Your task to perform on an android device: change notification settings in the gmail app Image 0: 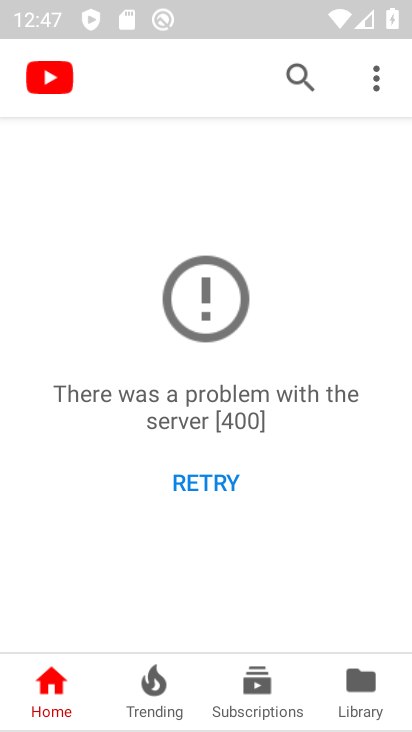
Step 0: press home button
Your task to perform on an android device: change notification settings in the gmail app Image 1: 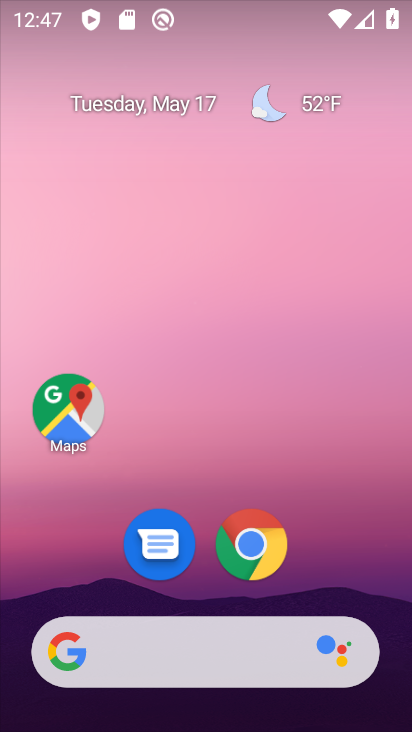
Step 1: drag from (339, 542) to (352, 55)
Your task to perform on an android device: change notification settings in the gmail app Image 2: 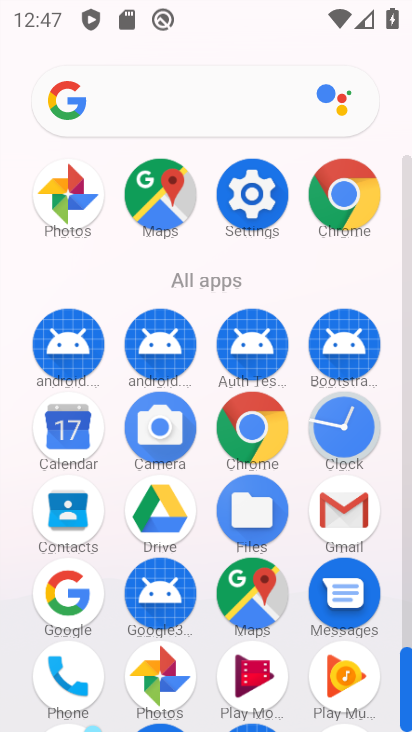
Step 2: click (361, 522)
Your task to perform on an android device: change notification settings in the gmail app Image 3: 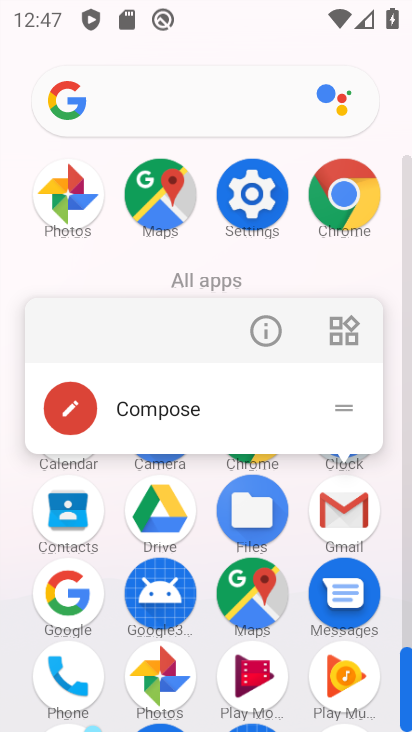
Step 3: click (353, 523)
Your task to perform on an android device: change notification settings in the gmail app Image 4: 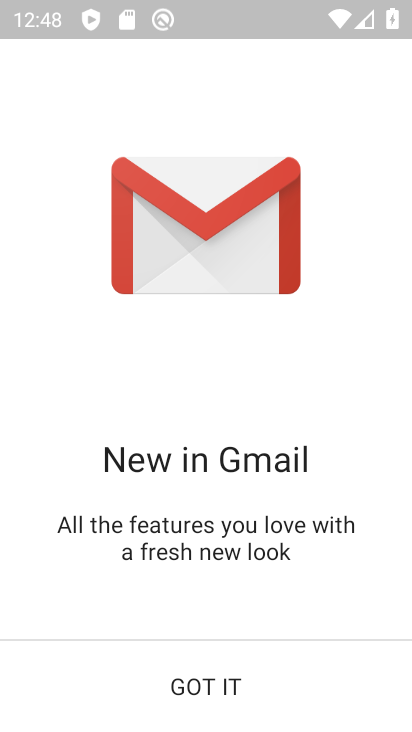
Step 4: click (226, 683)
Your task to perform on an android device: change notification settings in the gmail app Image 5: 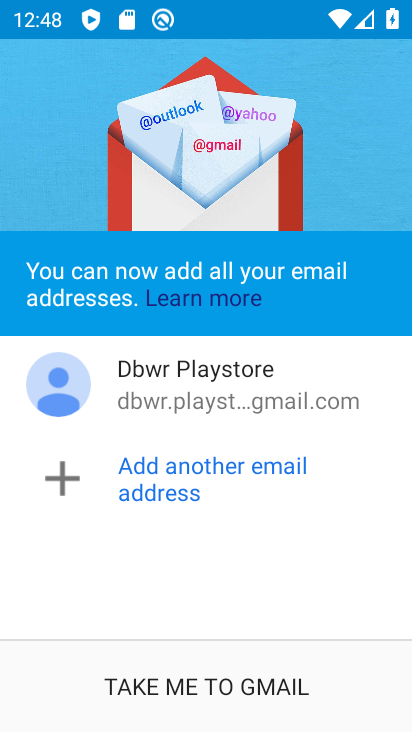
Step 5: click (225, 673)
Your task to perform on an android device: change notification settings in the gmail app Image 6: 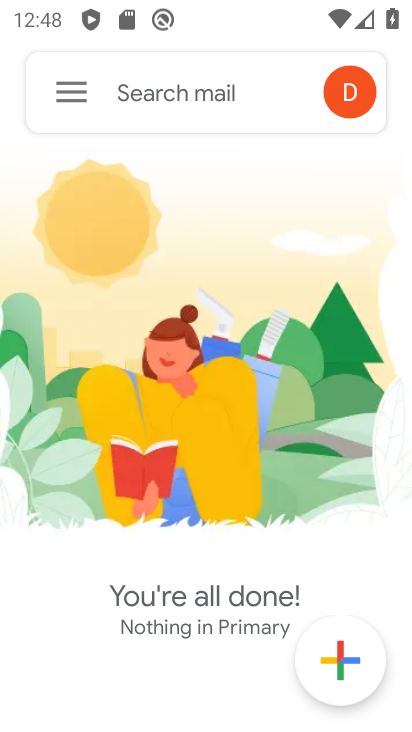
Step 6: click (82, 89)
Your task to perform on an android device: change notification settings in the gmail app Image 7: 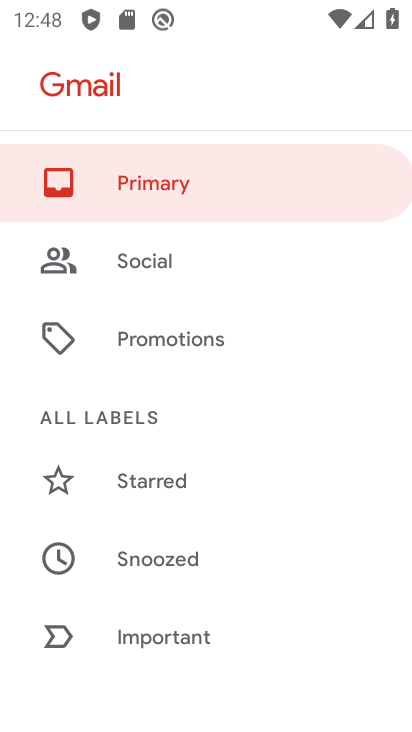
Step 7: drag from (250, 658) to (309, 232)
Your task to perform on an android device: change notification settings in the gmail app Image 8: 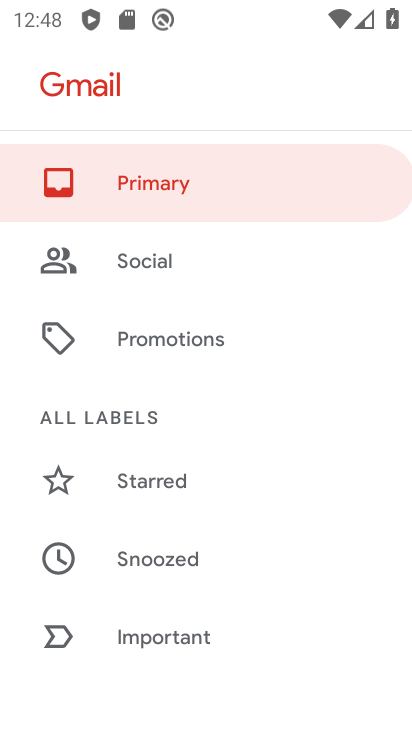
Step 8: drag from (231, 629) to (213, 207)
Your task to perform on an android device: change notification settings in the gmail app Image 9: 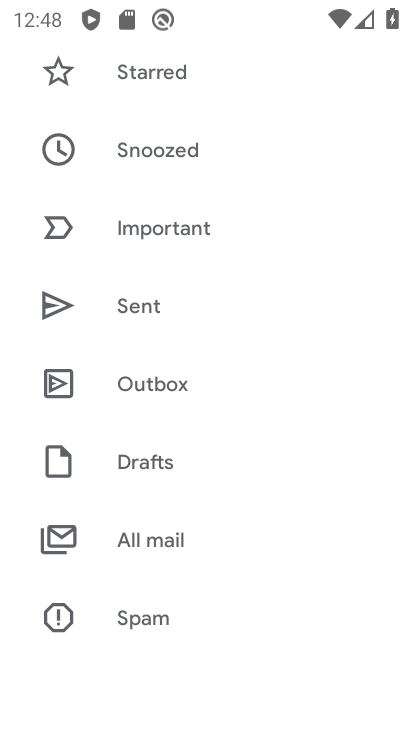
Step 9: drag from (195, 587) to (223, 158)
Your task to perform on an android device: change notification settings in the gmail app Image 10: 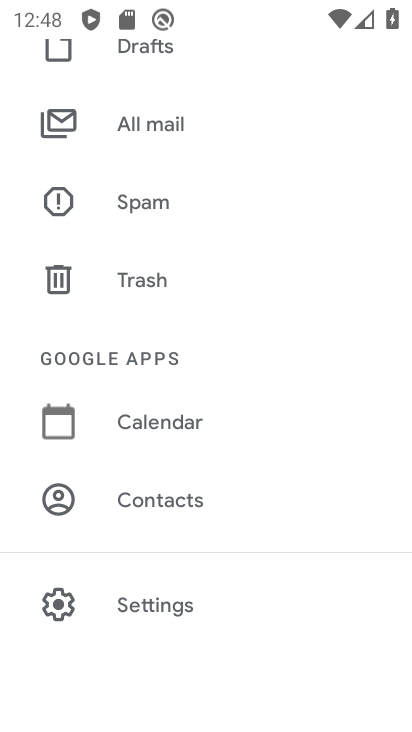
Step 10: click (191, 600)
Your task to perform on an android device: change notification settings in the gmail app Image 11: 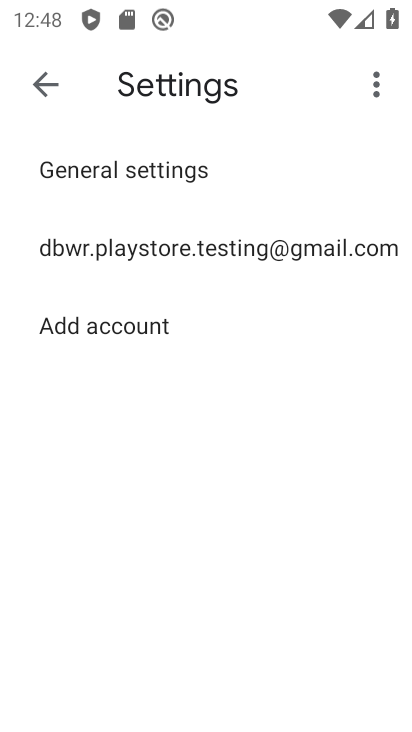
Step 11: click (237, 253)
Your task to perform on an android device: change notification settings in the gmail app Image 12: 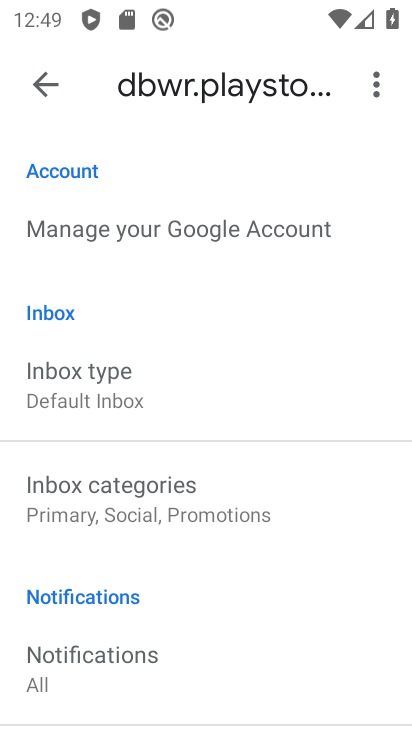
Step 12: click (192, 666)
Your task to perform on an android device: change notification settings in the gmail app Image 13: 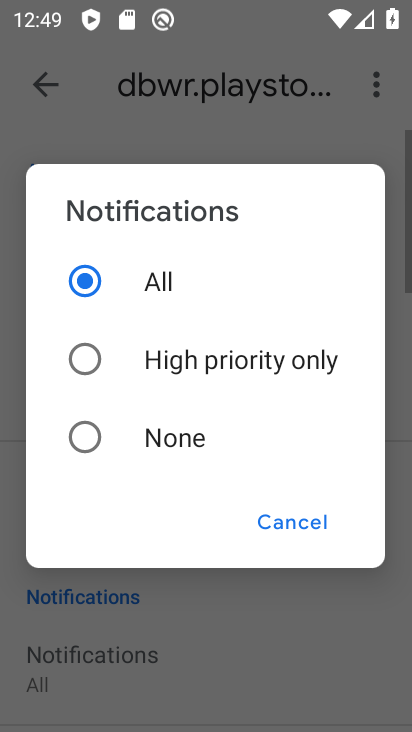
Step 13: click (174, 367)
Your task to perform on an android device: change notification settings in the gmail app Image 14: 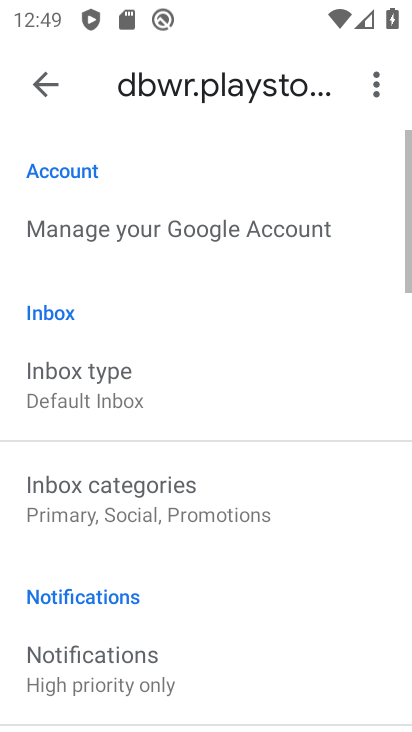
Step 14: task complete